Your task to perform on an android device: Search for flights from Buenos aires to Tokyo Image 0: 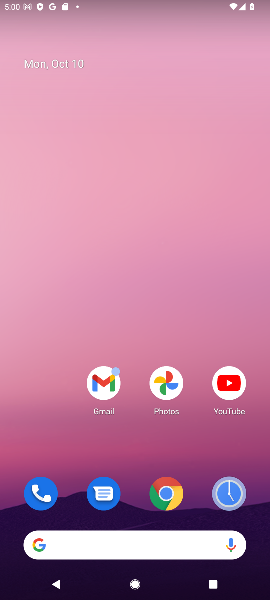
Step 0: click (179, 550)
Your task to perform on an android device: Search for flights from Buenos aires to Tokyo Image 1: 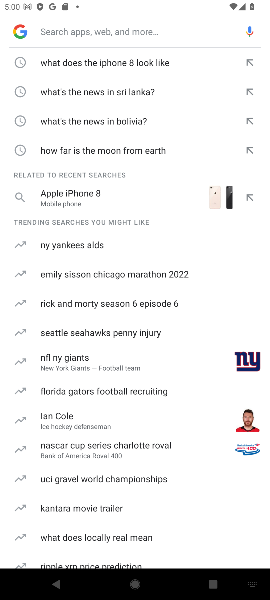
Step 1: type " flights from Buenos aires to Tokyo"
Your task to perform on an android device: Search for flights from Buenos aires to Tokyo Image 2: 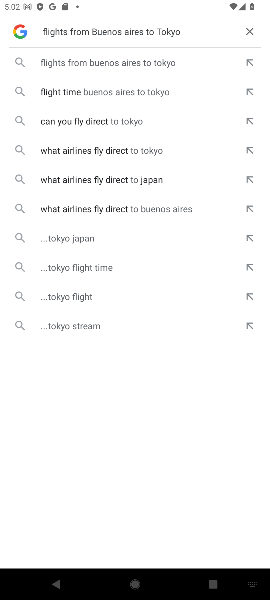
Step 2: click (123, 75)
Your task to perform on an android device: Search for flights from Buenos aires to Tokyo Image 3: 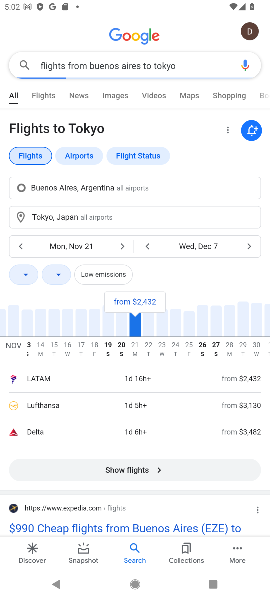
Step 3: task complete